Your task to perform on an android device: turn notification dots on Image 0: 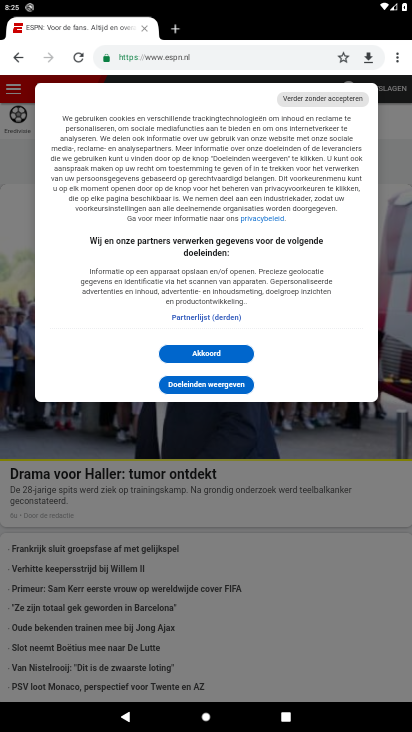
Step 0: press home button
Your task to perform on an android device: turn notification dots on Image 1: 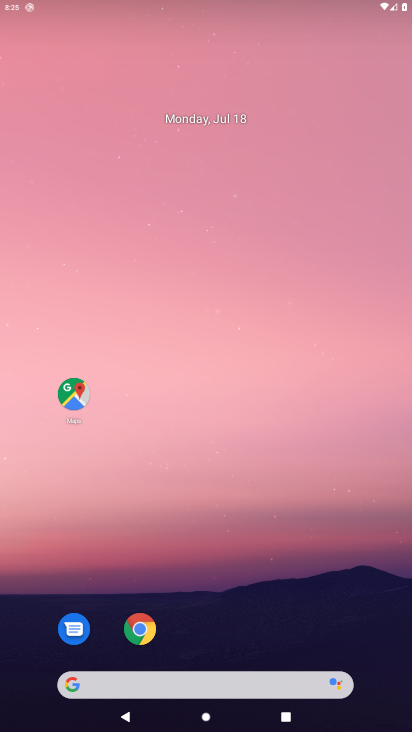
Step 1: drag from (19, 564) to (255, 69)
Your task to perform on an android device: turn notification dots on Image 2: 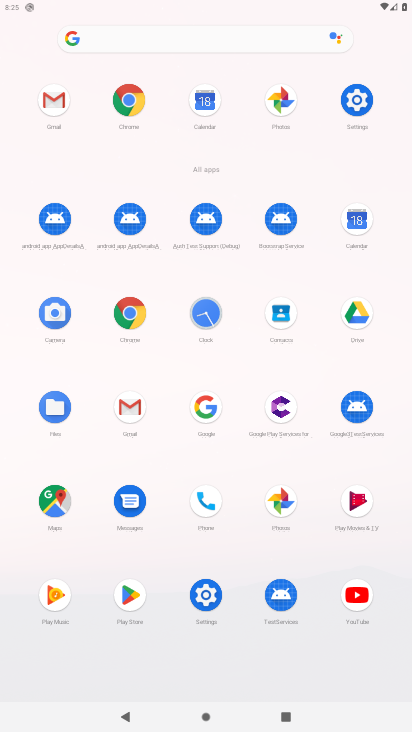
Step 2: click (379, 102)
Your task to perform on an android device: turn notification dots on Image 3: 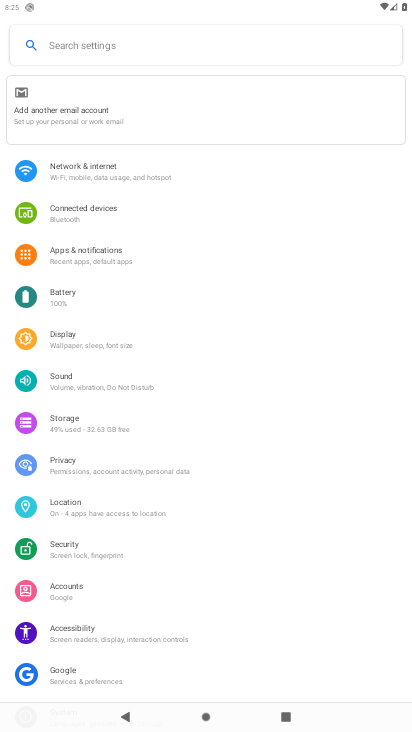
Step 3: click (84, 261)
Your task to perform on an android device: turn notification dots on Image 4: 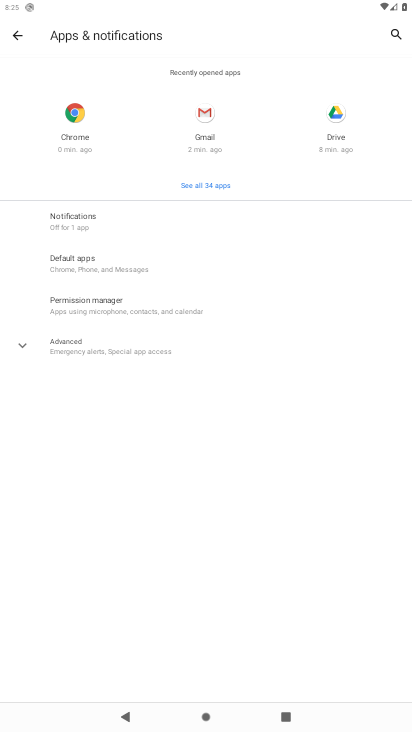
Step 4: click (213, 226)
Your task to perform on an android device: turn notification dots on Image 5: 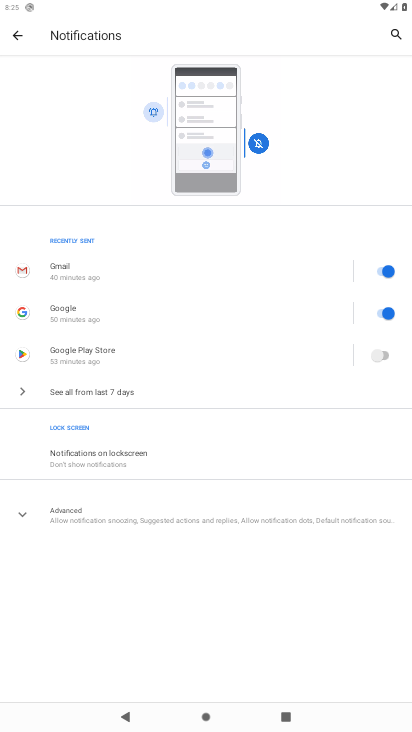
Step 5: click (184, 511)
Your task to perform on an android device: turn notification dots on Image 6: 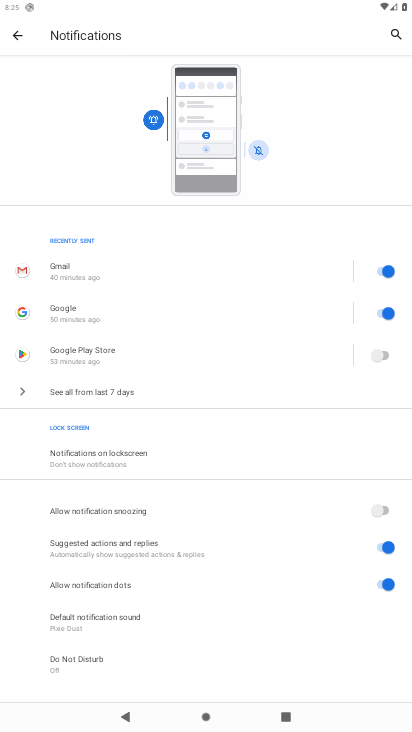
Step 6: task complete